Your task to perform on an android device: turn off location Image 0: 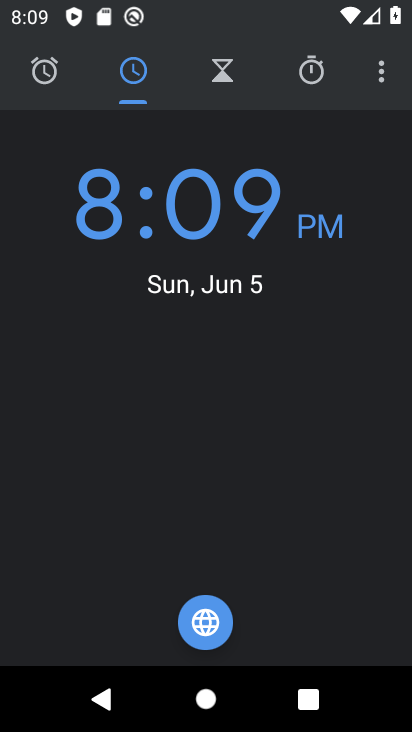
Step 0: press home button
Your task to perform on an android device: turn off location Image 1: 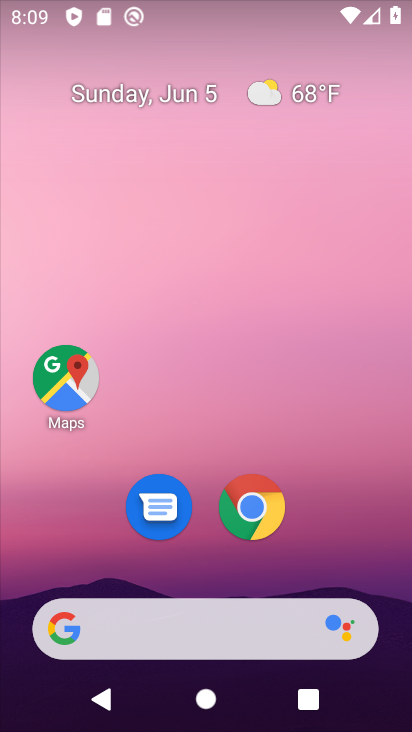
Step 1: drag from (197, 587) to (313, 18)
Your task to perform on an android device: turn off location Image 2: 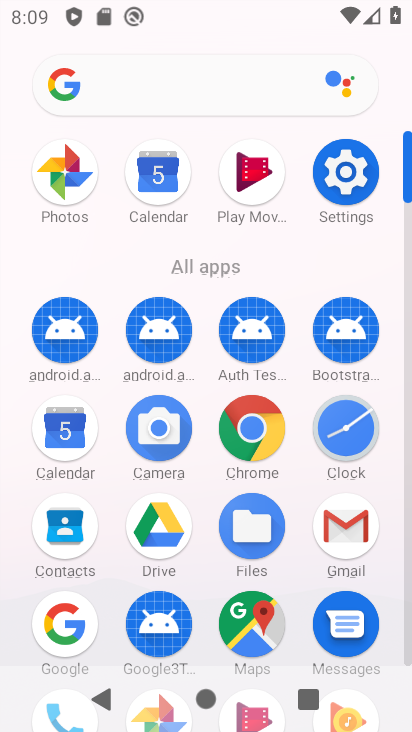
Step 2: click (359, 185)
Your task to perform on an android device: turn off location Image 3: 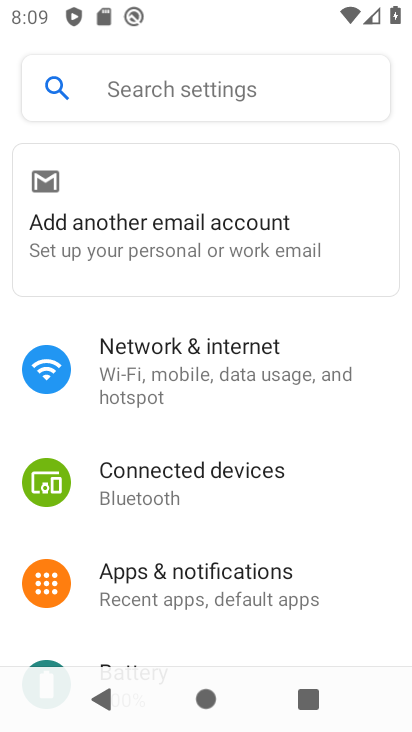
Step 3: drag from (201, 601) to (217, 269)
Your task to perform on an android device: turn off location Image 4: 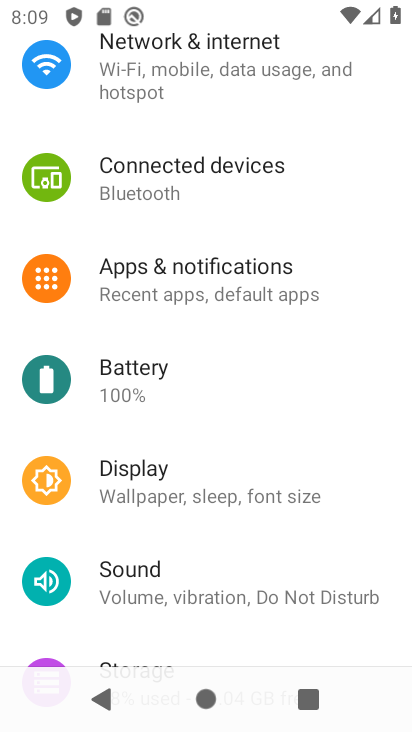
Step 4: drag from (176, 561) to (257, 139)
Your task to perform on an android device: turn off location Image 5: 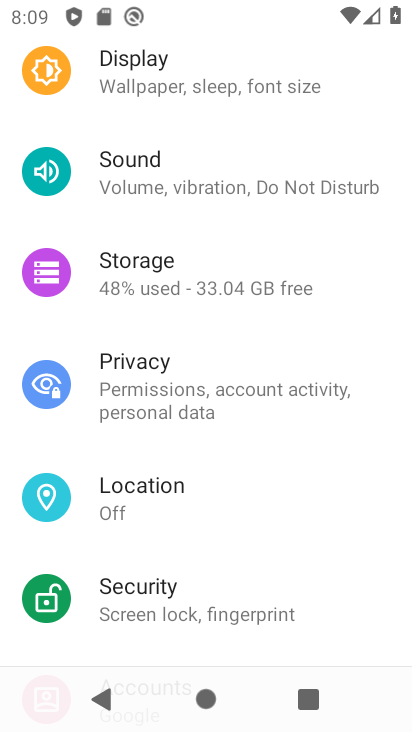
Step 5: click (174, 487)
Your task to perform on an android device: turn off location Image 6: 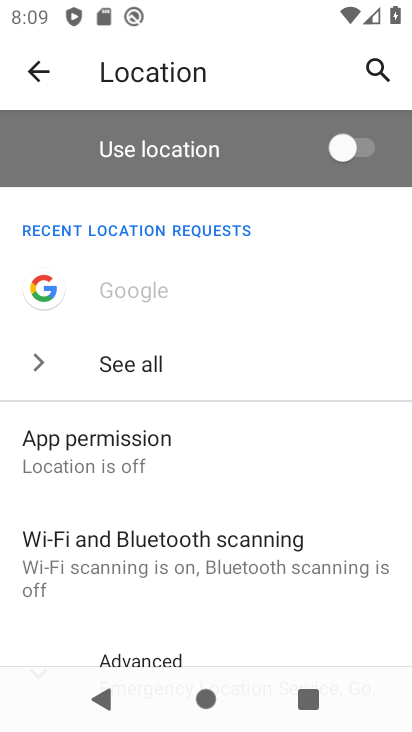
Step 6: task complete